Your task to perform on an android device: show emergency info Image 0: 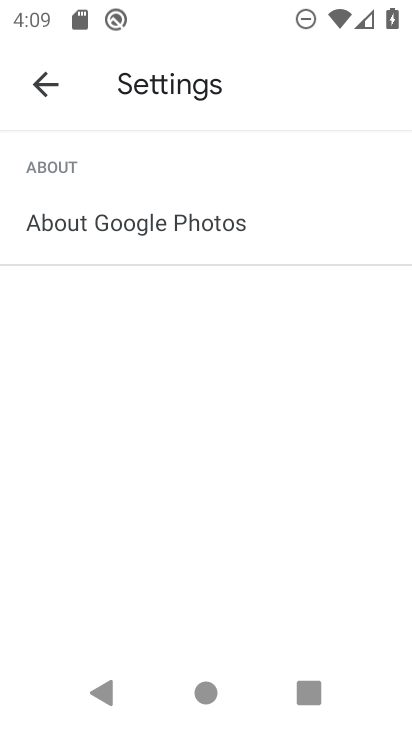
Step 0: press home button
Your task to perform on an android device: show emergency info Image 1: 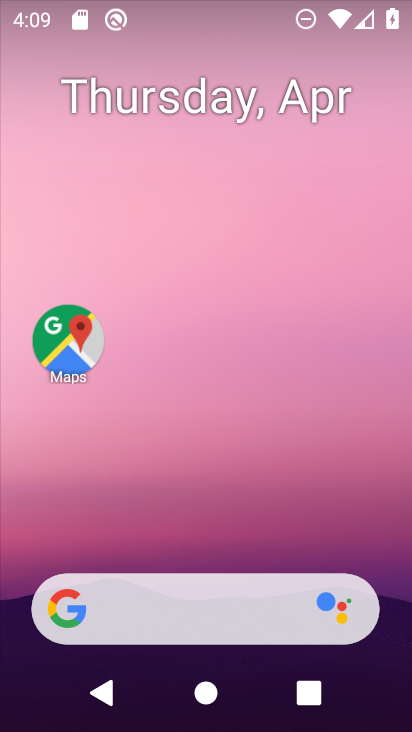
Step 1: drag from (216, 721) to (220, 135)
Your task to perform on an android device: show emergency info Image 2: 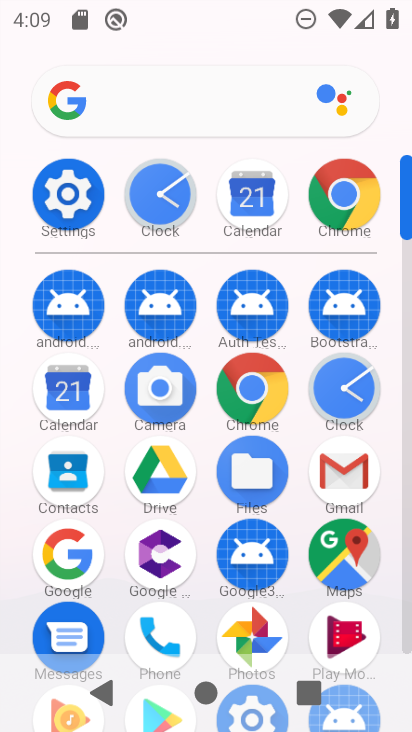
Step 2: click (75, 206)
Your task to perform on an android device: show emergency info Image 3: 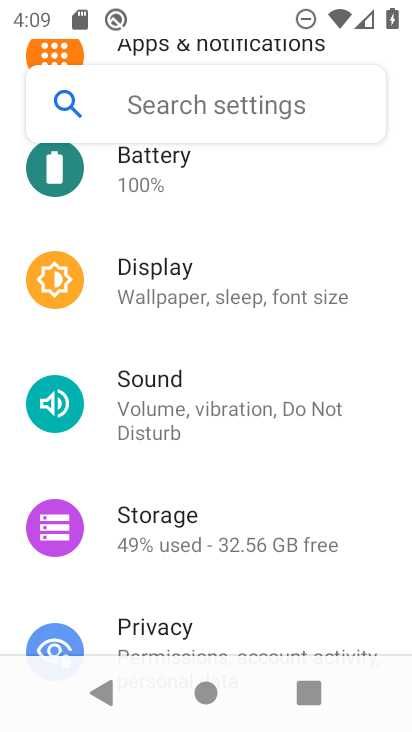
Step 3: drag from (208, 621) to (208, 190)
Your task to perform on an android device: show emergency info Image 4: 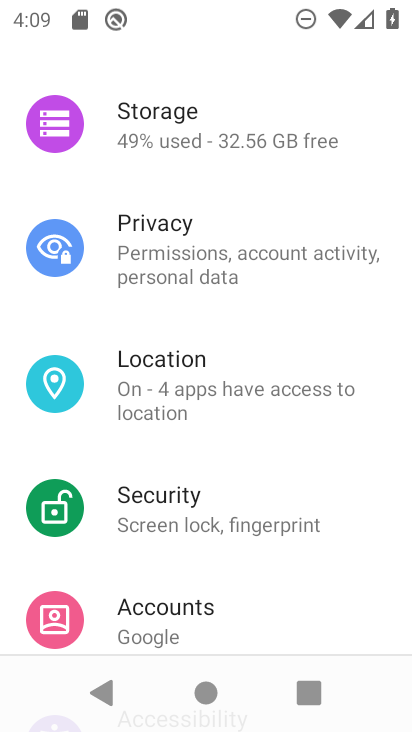
Step 4: drag from (204, 623) to (196, 241)
Your task to perform on an android device: show emergency info Image 5: 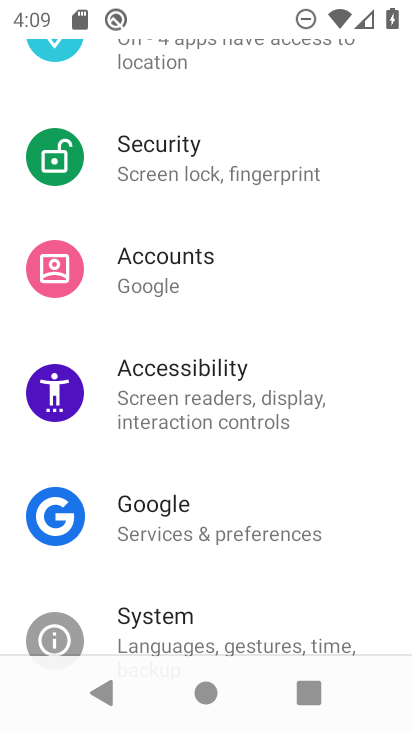
Step 5: drag from (226, 601) to (205, 261)
Your task to perform on an android device: show emergency info Image 6: 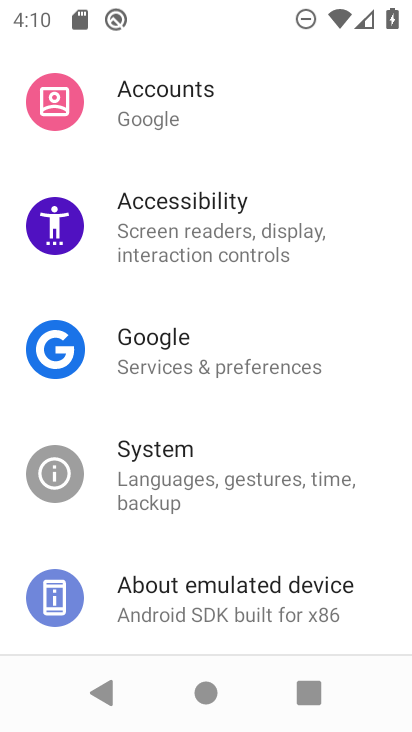
Step 6: click (207, 602)
Your task to perform on an android device: show emergency info Image 7: 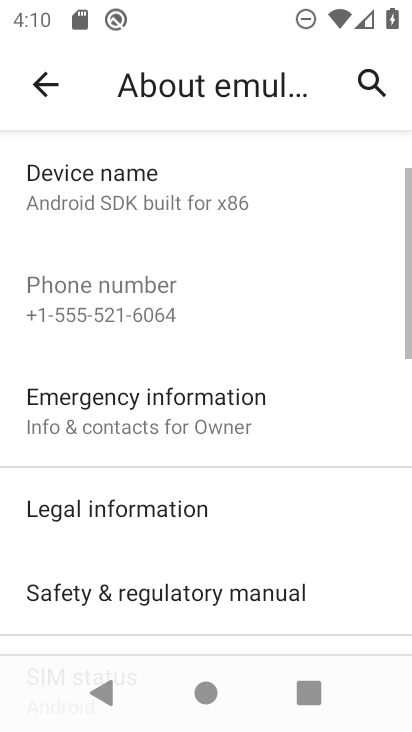
Step 7: click (131, 404)
Your task to perform on an android device: show emergency info Image 8: 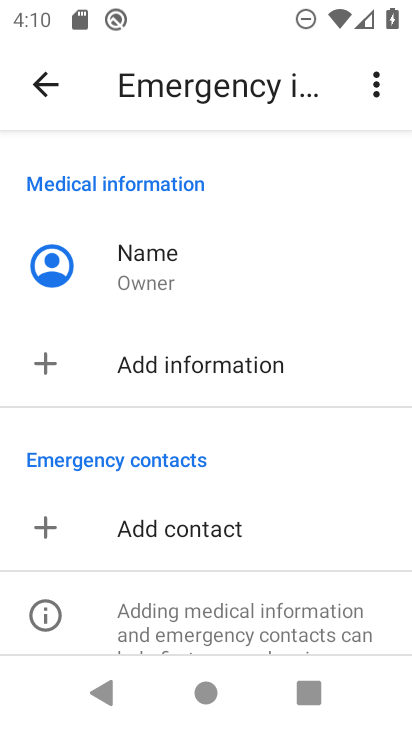
Step 8: task complete